Your task to perform on an android device: Do I have any events tomorrow? Image 0: 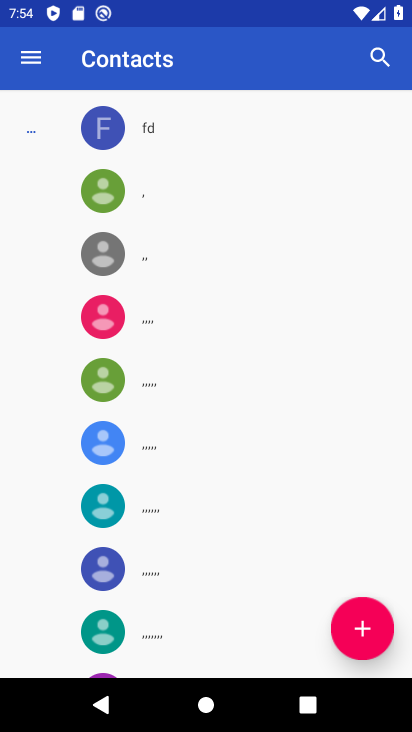
Step 0: press home button
Your task to perform on an android device: Do I have any events tomorrow? Image 1: 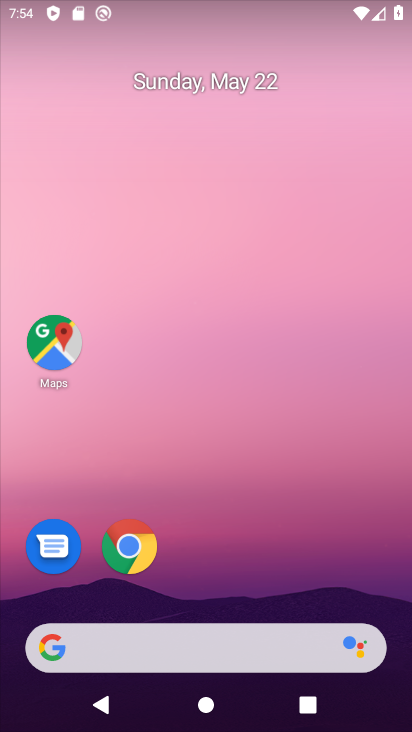
Step 1: drag from (169, 656) to (290, 117)
Your task to perform on an android device: Do I have any events tomorrow? Image 2: 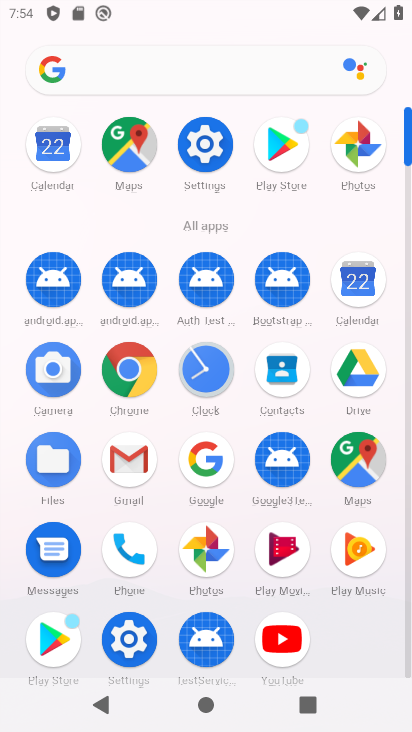
Step 2: click (364, 286)
Your task to perform on an android device: Do I have any events tomorrow? Image 3: 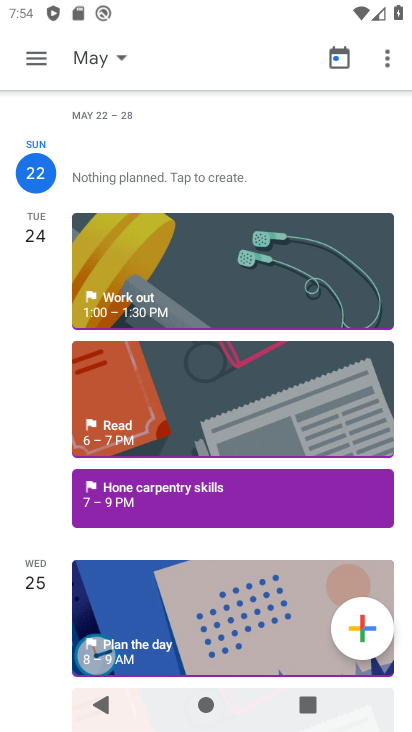
Step 3: click (96, 57)
Your task to perform on an android device: Do I have any events tomorrow? Image 4: 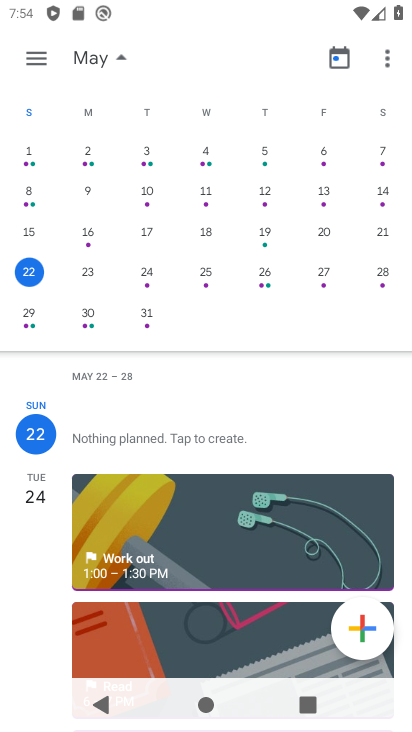
Step 4: click (87, 273)
Your task to perform on an android device: Do I have any events tomorrow? Image 5: 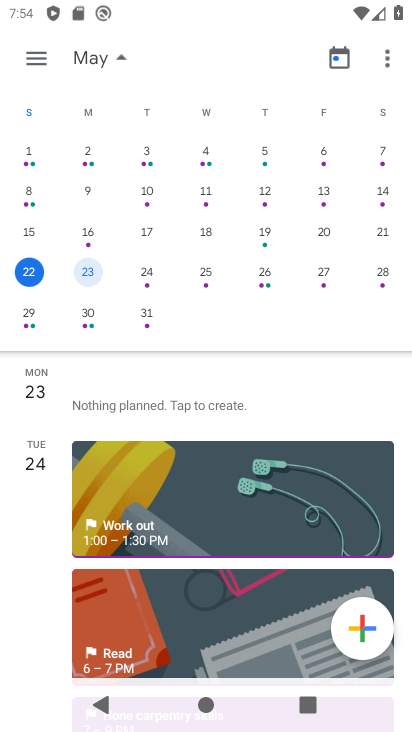
Step 5: click (45, 57)
Your task to perform on an android device: Do I have any events tomorrow? Image 6: 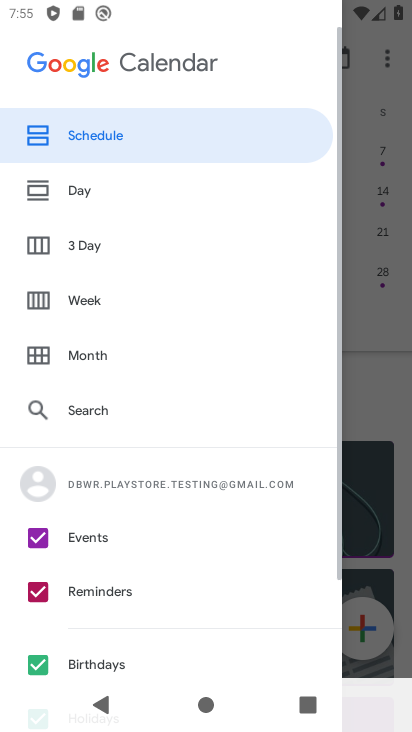
Step 6: click (104, 140)
Your task to perform on an android device: Do I have any events tomorrow? Image 7: 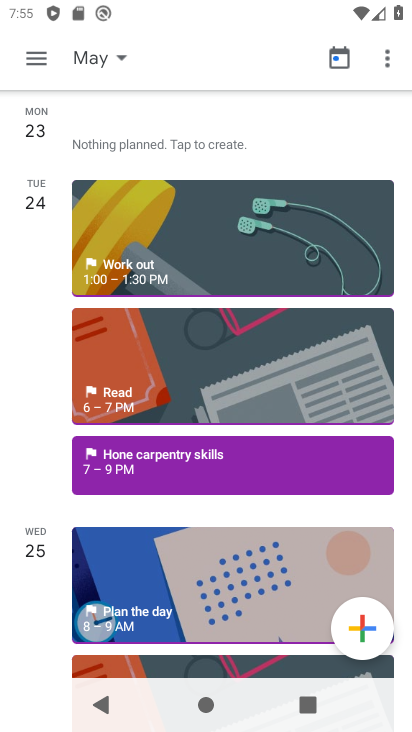
Step 7: task complete